Your task to perform on an android device: turn off notifications settings in the gmail app Image 0: 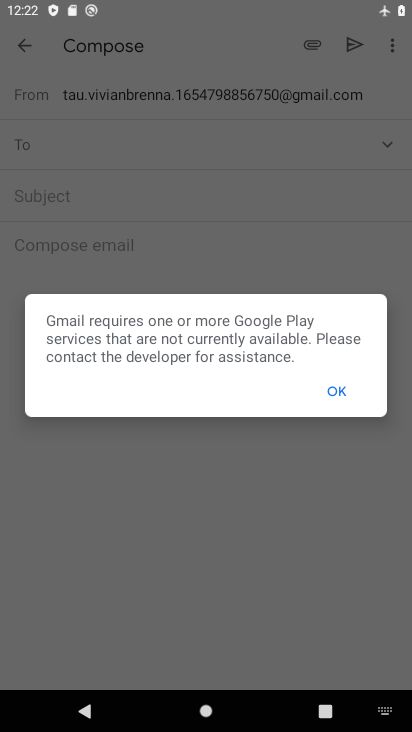
Step 0: drag from (203, 643) to (243, 325)
Your task to perform on an android device: turn off notifications settings in the gmail app Image 1: 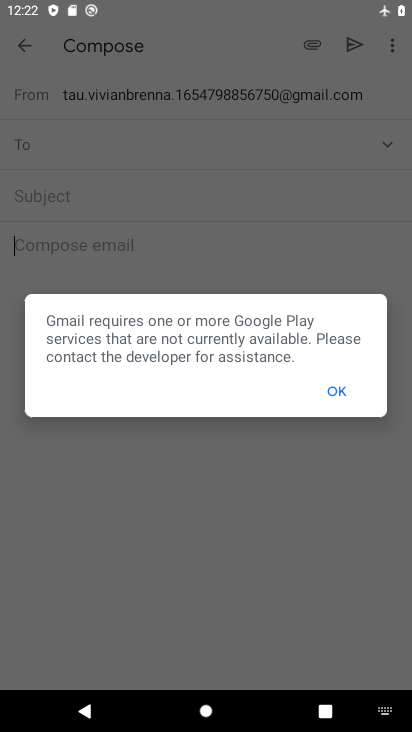
Step 1: press home button
Your task to perform on an android device: turn off notifications settings in the gmail app Image 2: 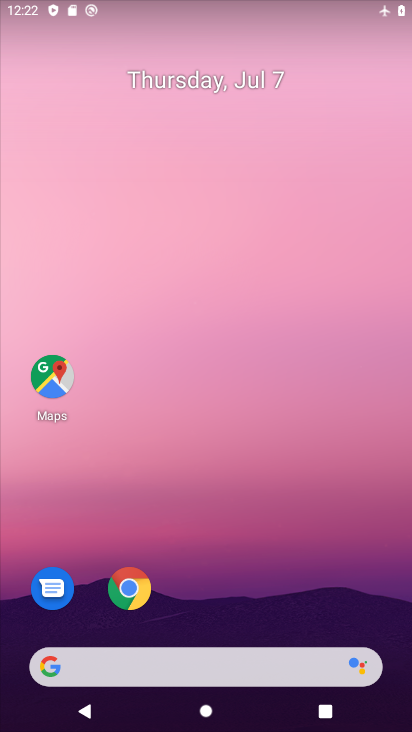
Step 2: drag from (194, 622) to (306, 24)
Your task to perform on an android device: turn off notifications settings in the gmail app Image 3: 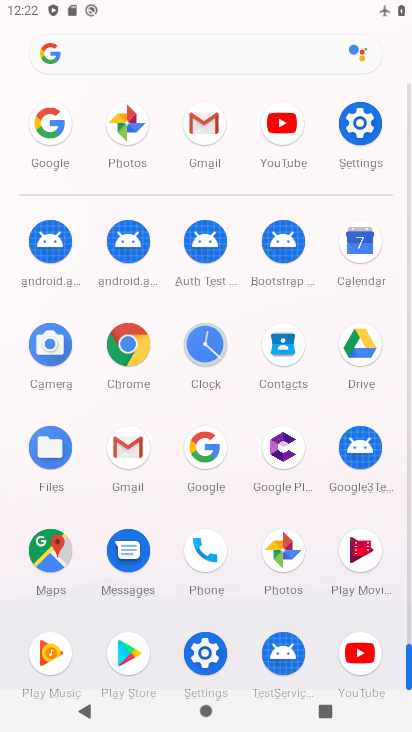
Step 3: click (126, 453)
Your task to perform on an android device: turn off notifications settings in the gmail app Image 4: 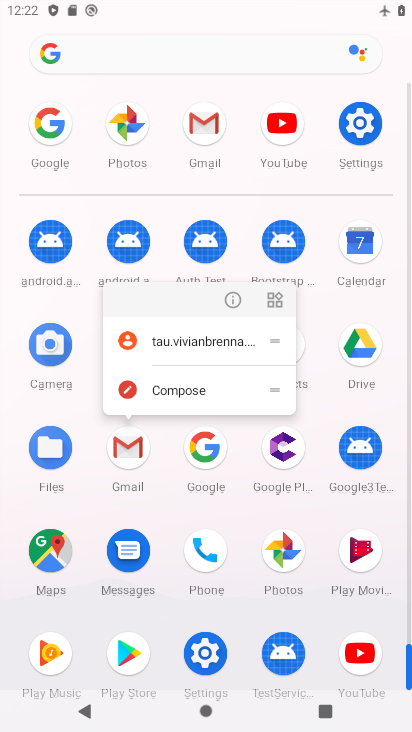
Step 4: click (230, 288)
Your task to perform on an android device: turn off notifications settings in the gmail app Image 5: 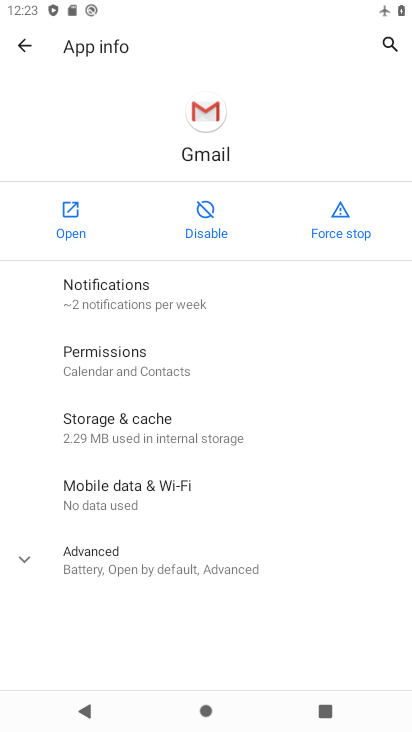
Step 5: click (65, 231)
Your task to perform on an android device: turn off notifications settings in the gmail app Image 6: 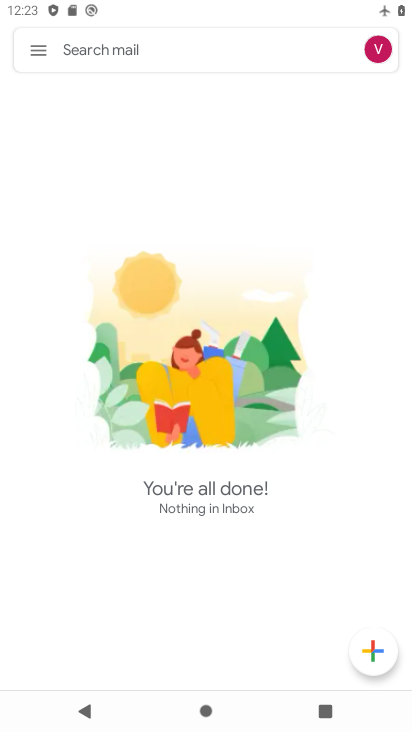
Step 6: drag from (206, 579) to (279, 302)
Your task to perform on an android device: turn off notifications settings in the gmail app Image 7: 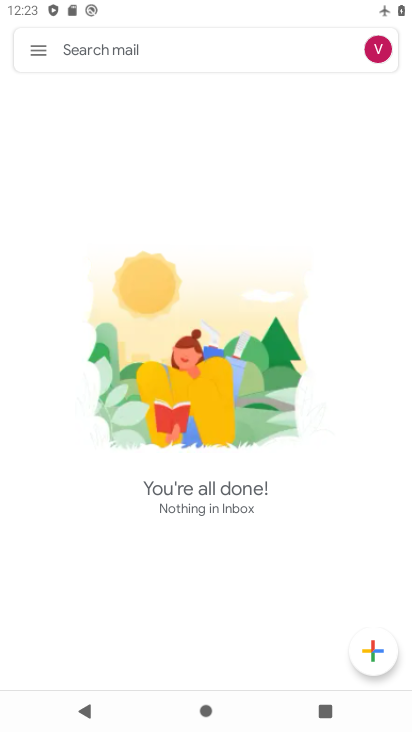
Step 7: click (29, 47)
Your task to perform on an android device: turn off notifications settings in the gmail app Image 8: 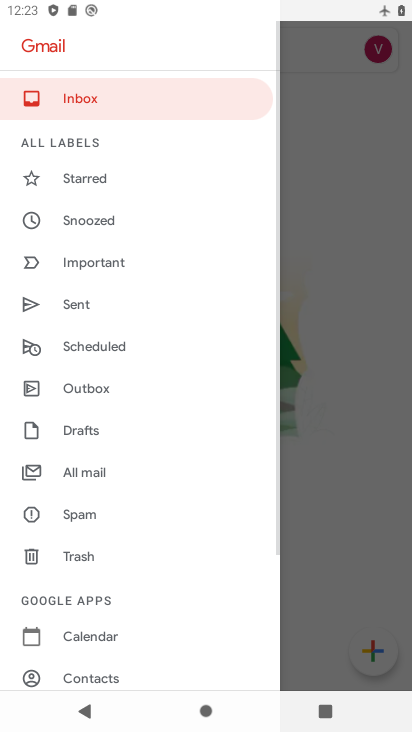
Step 8: drag from (121, 627) to (210, 118)
Your task to perform on an android device: turn off notifications settings in the gmail app Image 9: 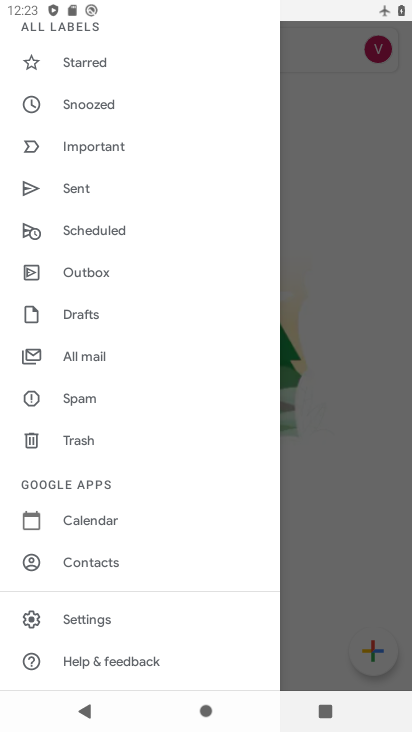
Step 9: click (63, 617)
Your task to perform on an android device: turn off notifications settings in the gmail app Image 10: 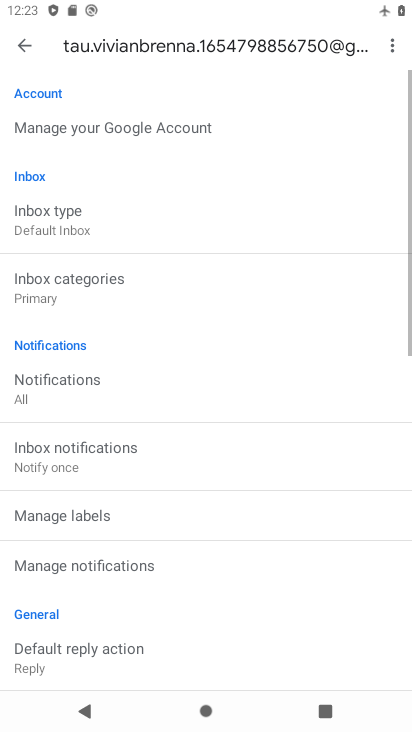
Step 10: drag from (121, 611) to (209, 167)
Your task to perform on an android device: turn off notifications settings in the gmail app Image 11: 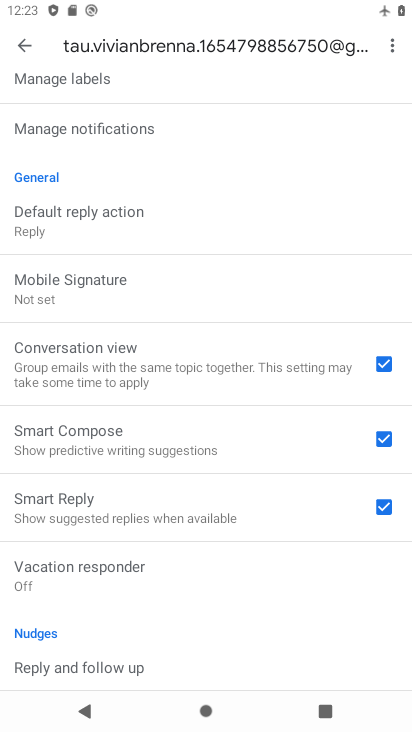
Step 11: drag from (231, 570) to (277, 192)
Your task to perform on an android device: turn off notifications settings in the gmail app Image 12: 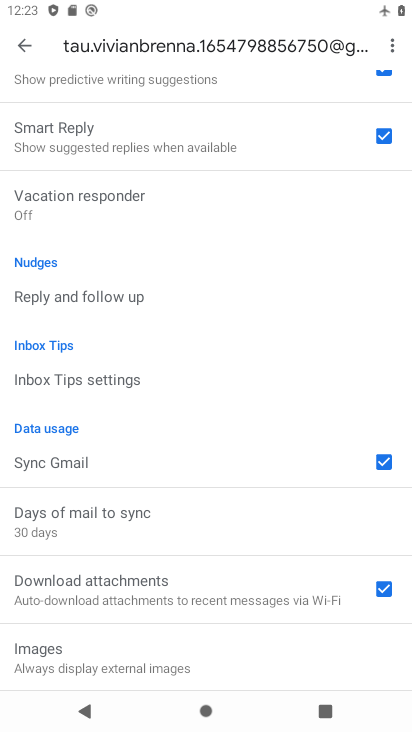
Step 12: drag from (191, 190) to (256, 683)
Your task to perform on an android device: turn off notifications settings in the gmail app Image 13: 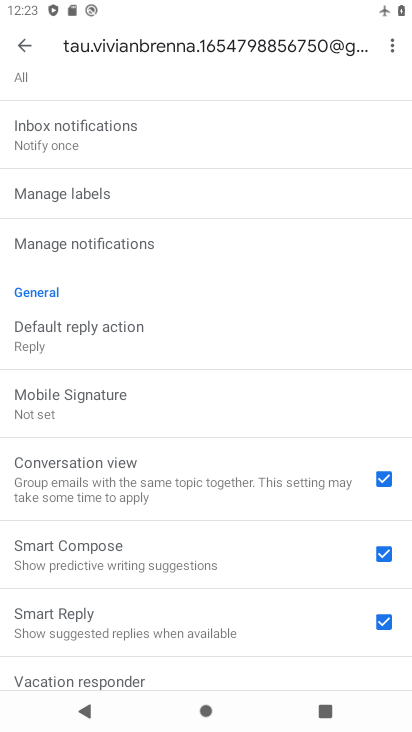
Step 13: click (96, 253)
Your task to perform on an android device: turn off notifications settings in the gmail app Image 14: 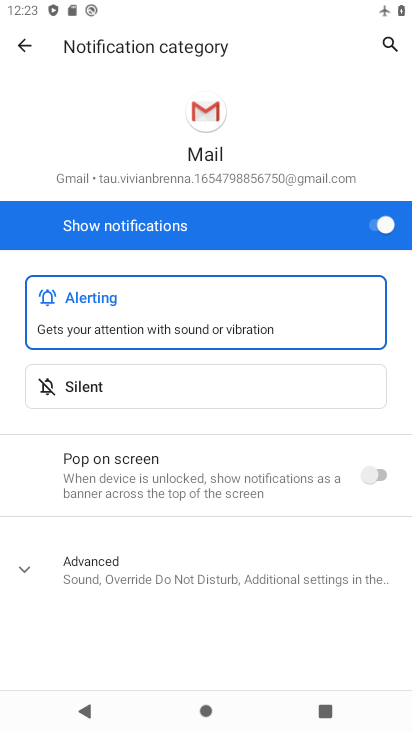
Step 14: click (367, 220)
Your task to perform on an android device: turn off notifications settings in the gmail app Image 15: 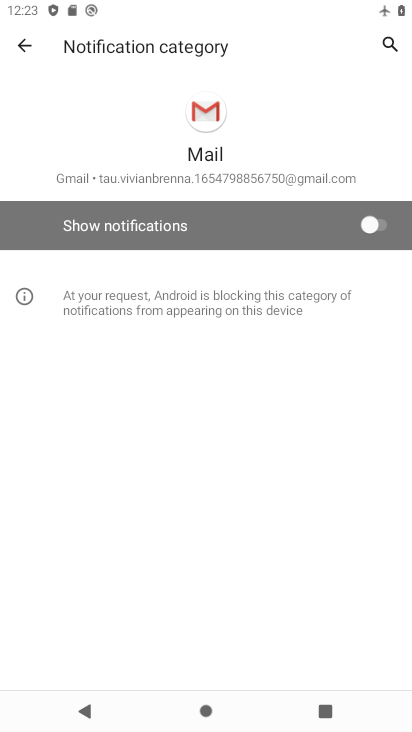
Step 15: task complete